Your task to perform on an android device: delete a single message in the gmail app Image 0: 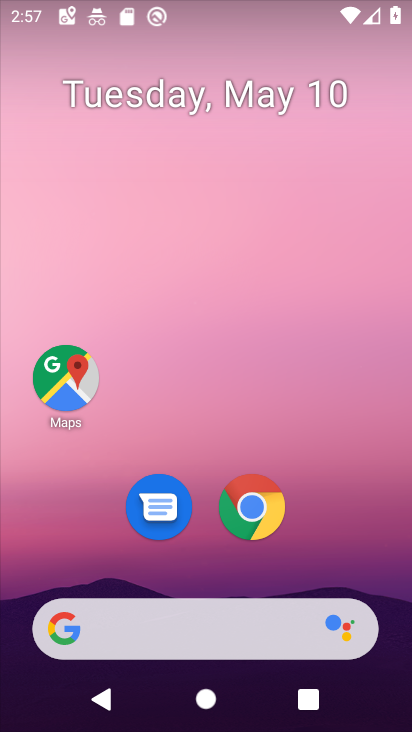
Step 0: drag from (193, 574) to (226, 85)
Your task to perform on an android device: delete a single message in the gmail app Image 1: 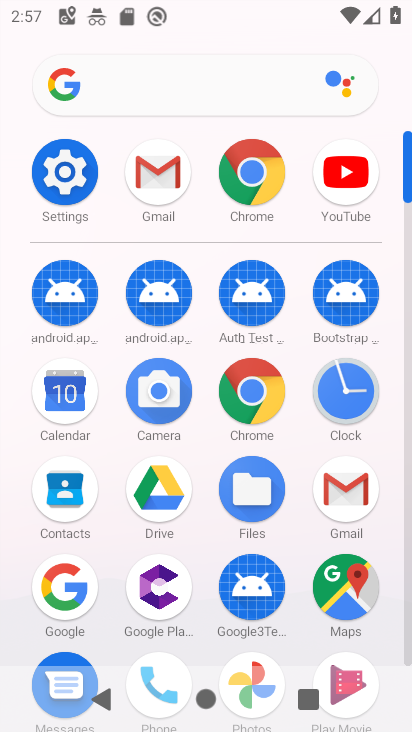
Step 1: click (155, 172)
Your task to perform on an android device: delete a single message in the gmail app Image 2: 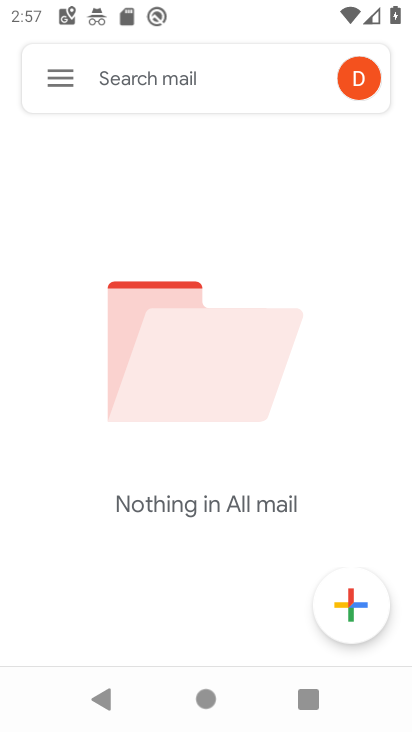
Step 2: click (65, 85)
Your task to perform on an android device: delete a single message in the gmail app Image 3: 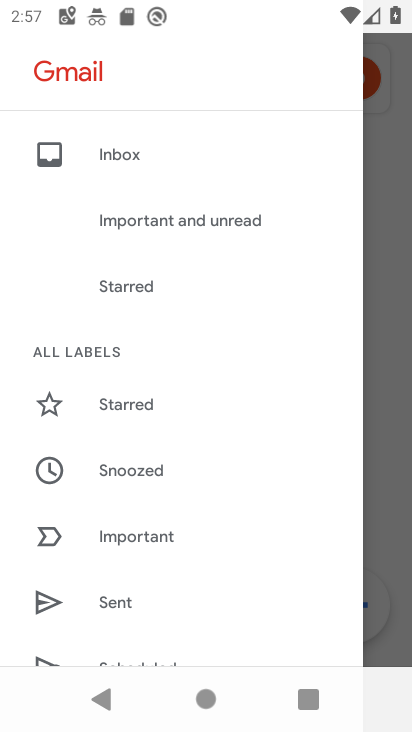
Step 3: drag from (197, 530) to (242, 217)
Your task to perform on an android device: delete a single message in the gmail app Image 4: 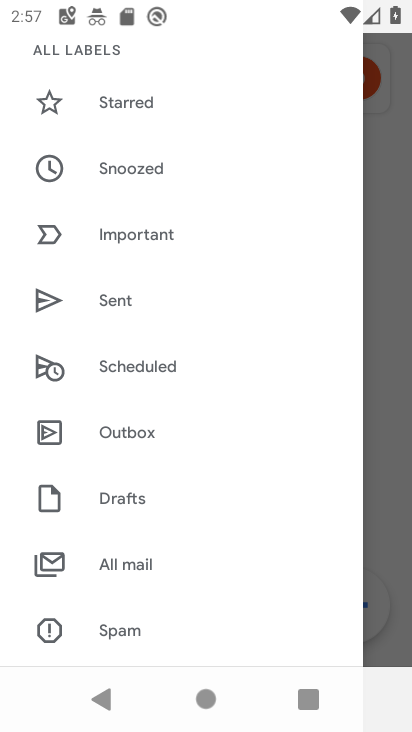
Step 4: click (123, 569)
Your task to perform on an android device: delete a single message in the gmail app Image 5: 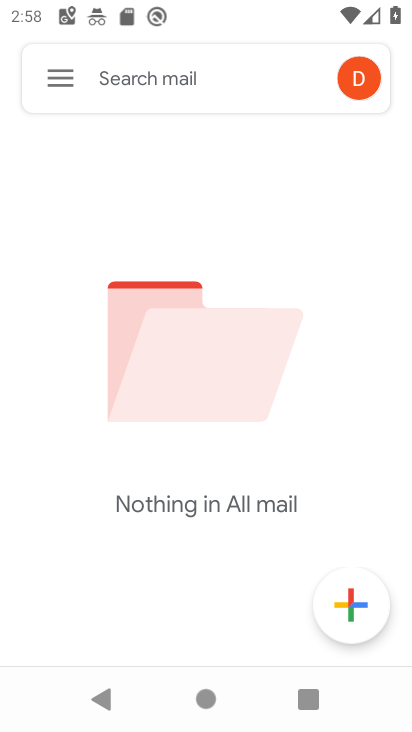
Step 5: task complete